Your task to perform on an android device: Open the calendar app, open the side menu, and click the "Day" option Image 0: 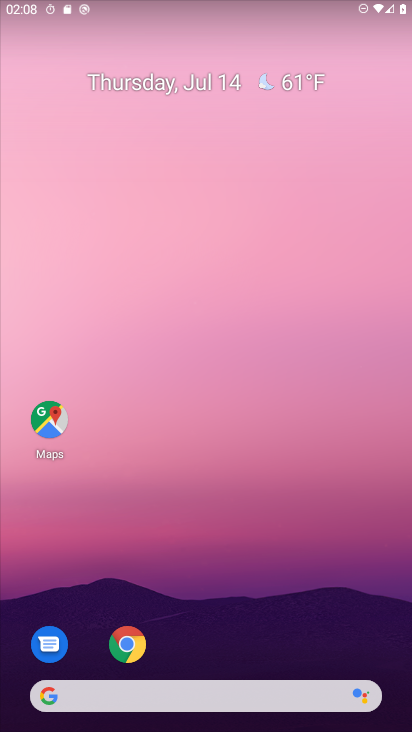
Step 0: drag from (307, 595) to (172, 142)
Your task to perform on an android device: Open the calendar app, open the side menu, and click the "Day" option Image 1: 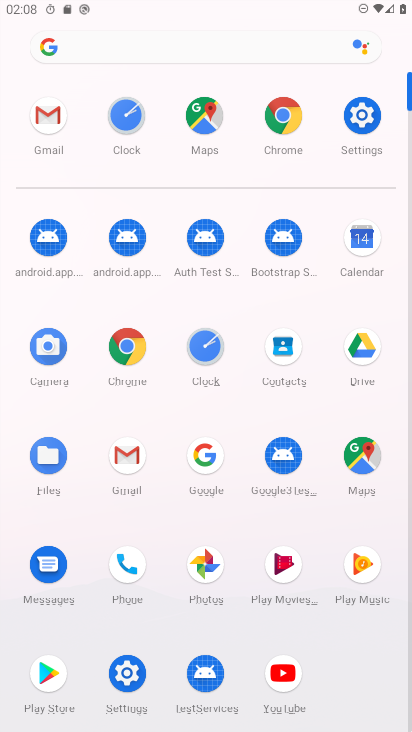
Step 1: click (371, 246)
Your task to perform on an android device: Open the calendar app, open the side menu, and click the "Day" option Image 2: 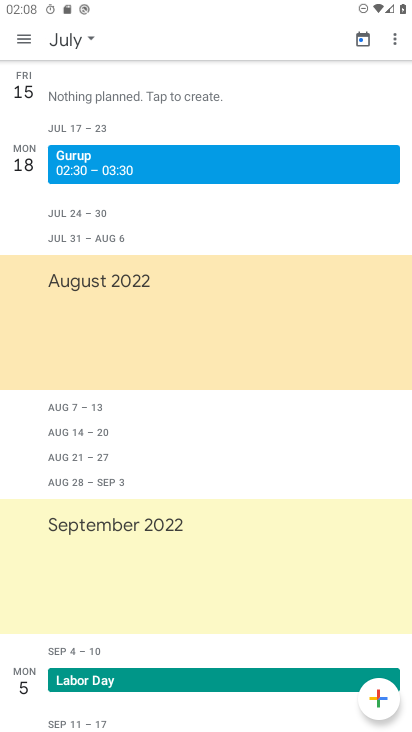
Step 2: click (25, 39)
Your task to perform on an android device: Open the calendar app, open the side menu, and click the "Day" option Image 3: 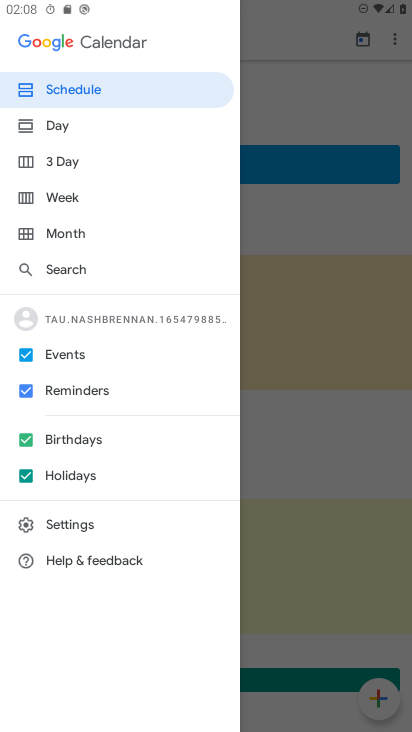
Step 3: click (70, 135)
Your task to perform on an android device: Open the calendar app, open the side menu, and click the "Day" option Image 4: 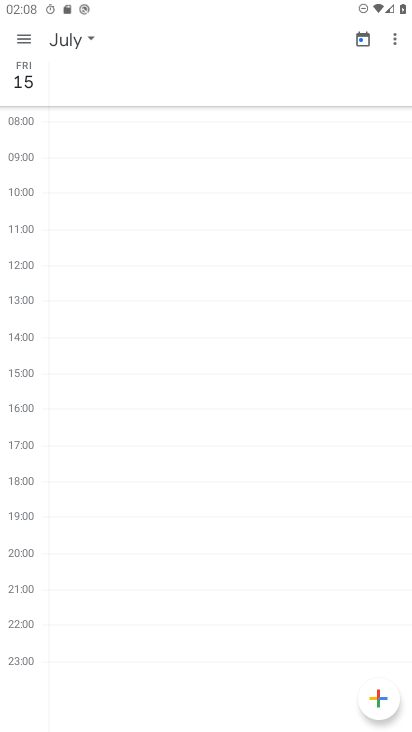
Step 4: task complete